Your task to perform on an android device: Is it going to rain today? Image 0: 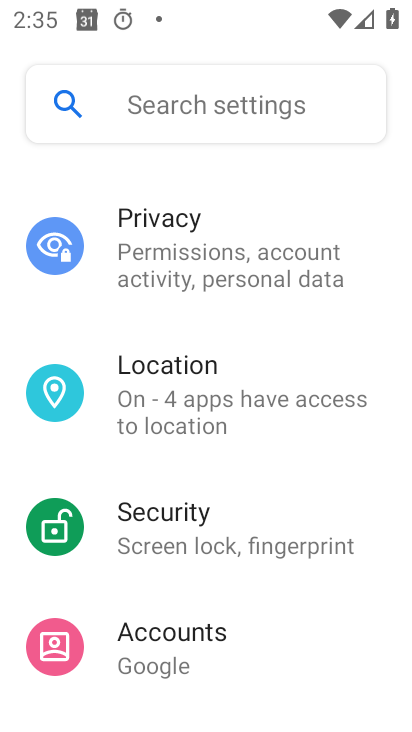
Step 0: press home button
Your task to perform on an android device: Is it going to rain today? Image 1: 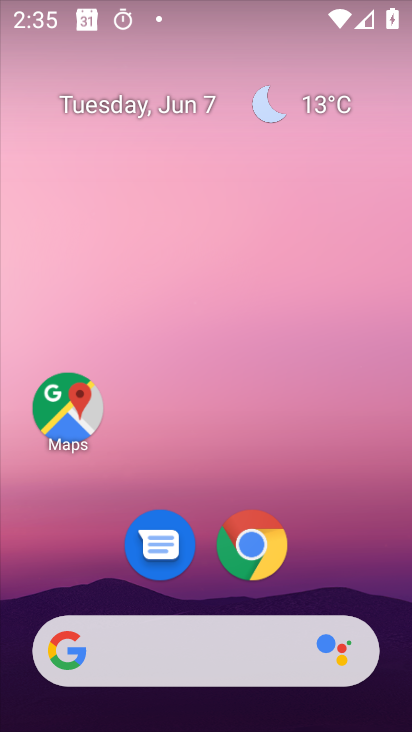
Step 1: click (319, 102)
Your task to perform on an android device: Is it going to rain today? Image 2: 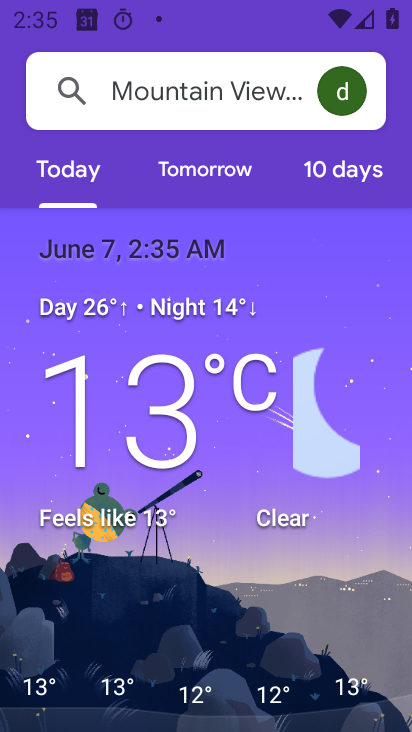
Step 2: task complete